Your task to perform on an android device: Search for "logitech g933" on bestbuy, select the first entry, and add it to the cart. Image 0: 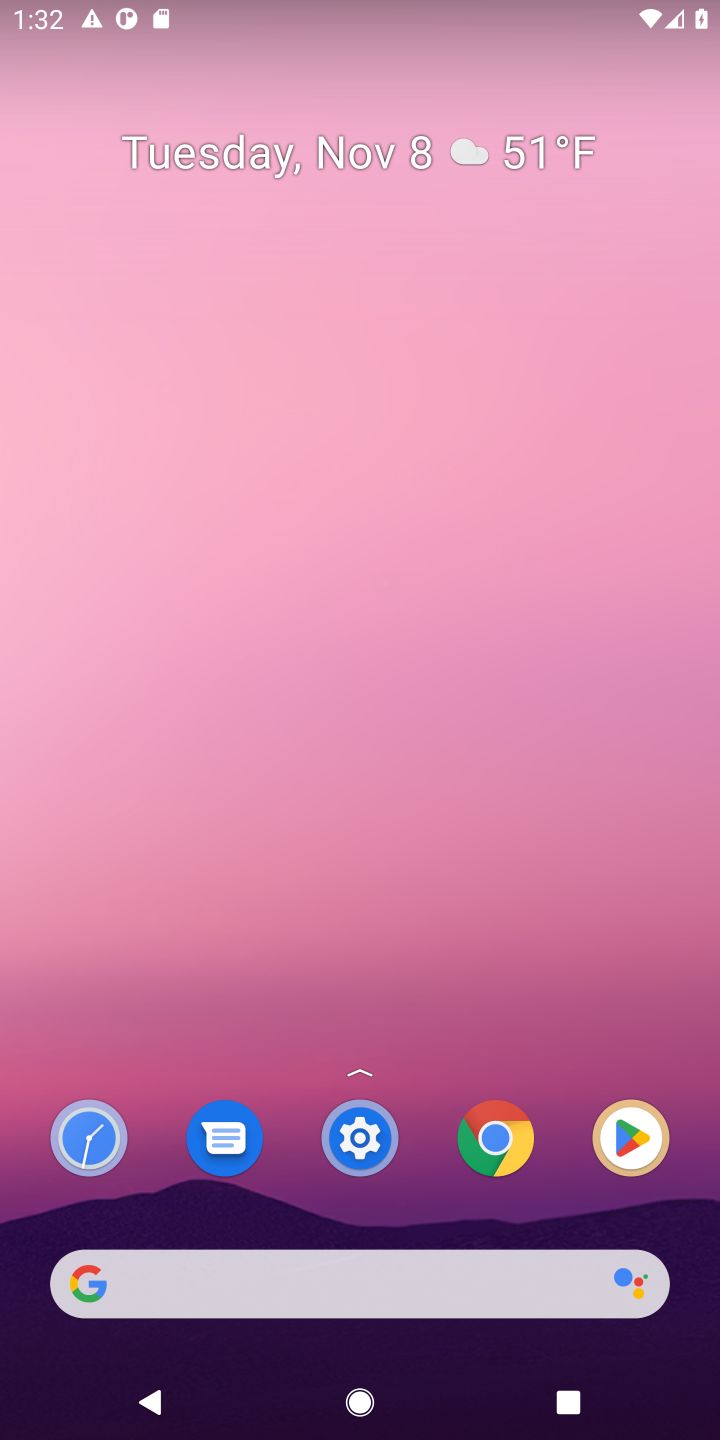
Step 0: click (418, 1275)
Your task to perform on an android device: Search for "logitech g933" on bestbuy, select the first entry, and add it to the cart. Image 1: 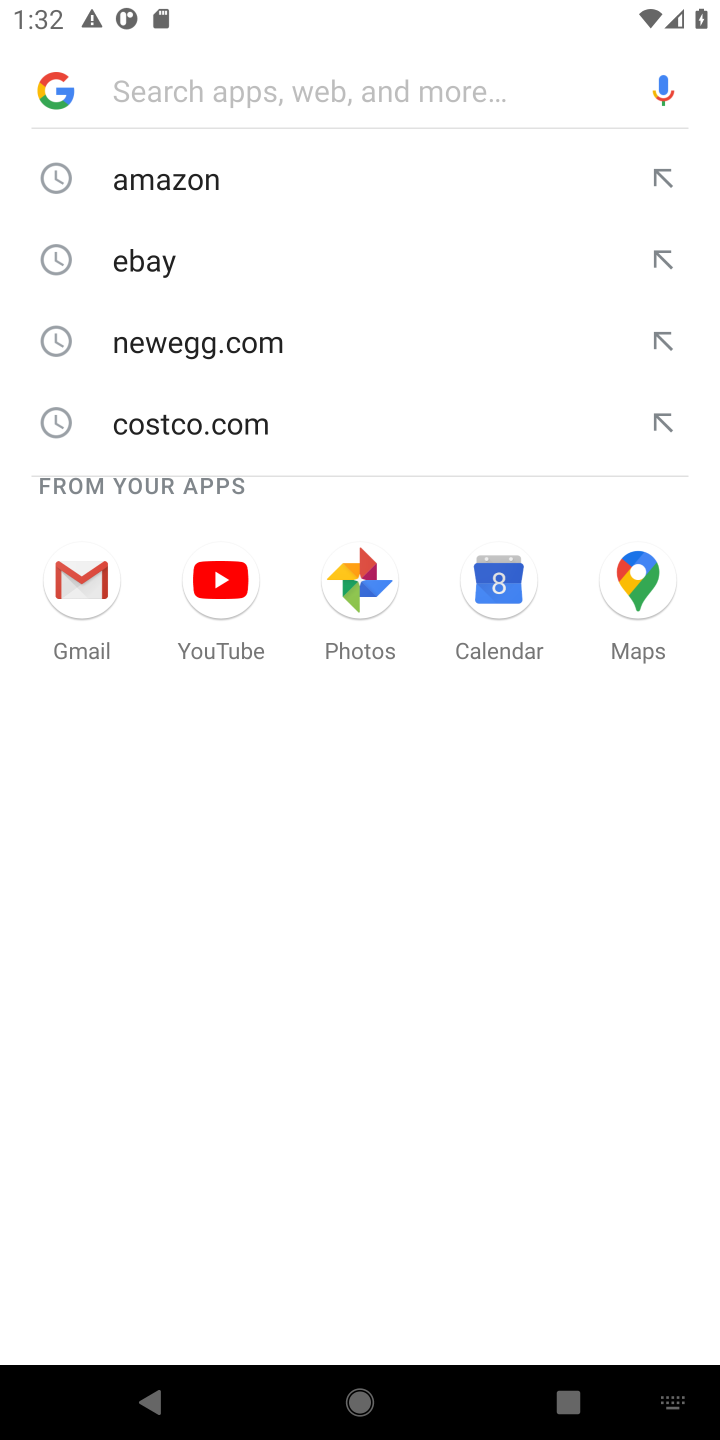
Step 1: click (661, 876)
Your task to perform on an android device: Search for "logitech g933" on bestbuy, select the first entry, and add it to the cart. Image 2: 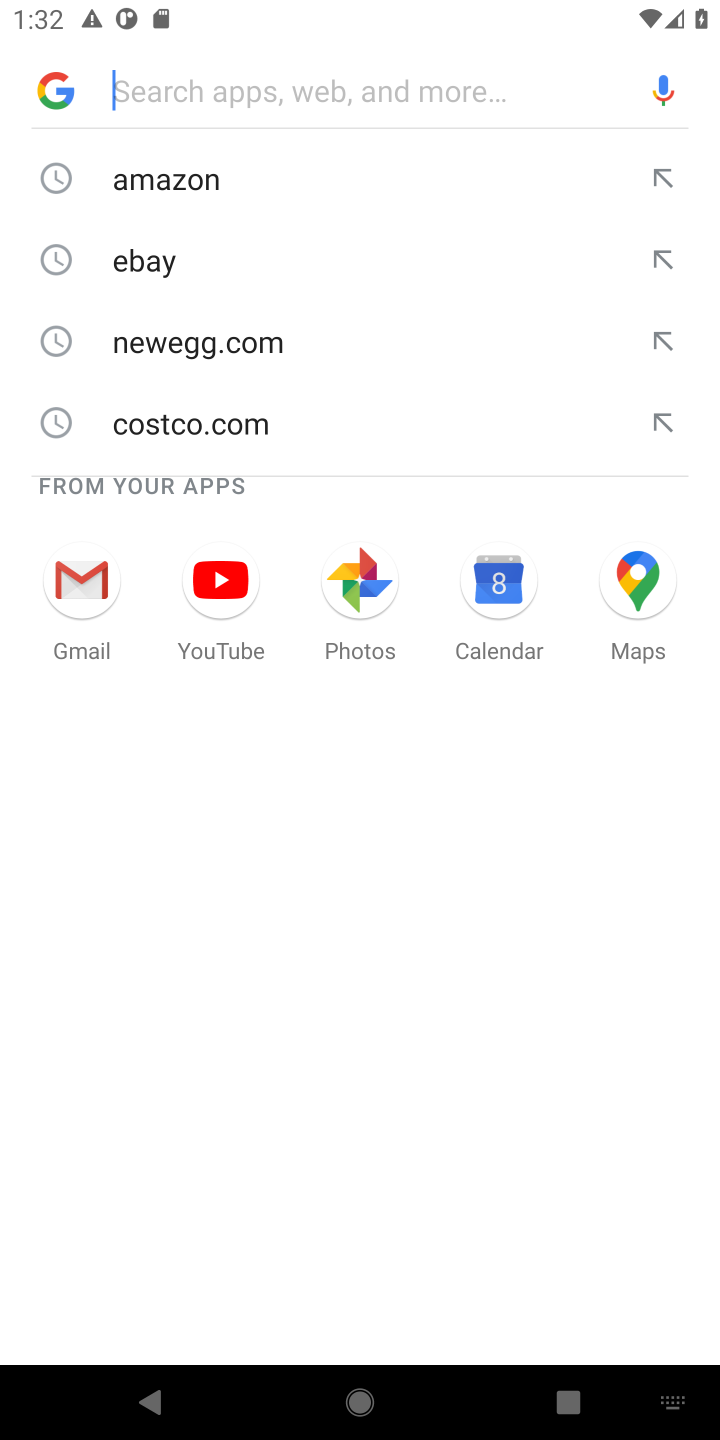
Step 2: type "besrbuy"
Your task to perform on an android device: Search for "logitech g933" on bestbuy, select the first entry, and add it to the cart. Image 3: 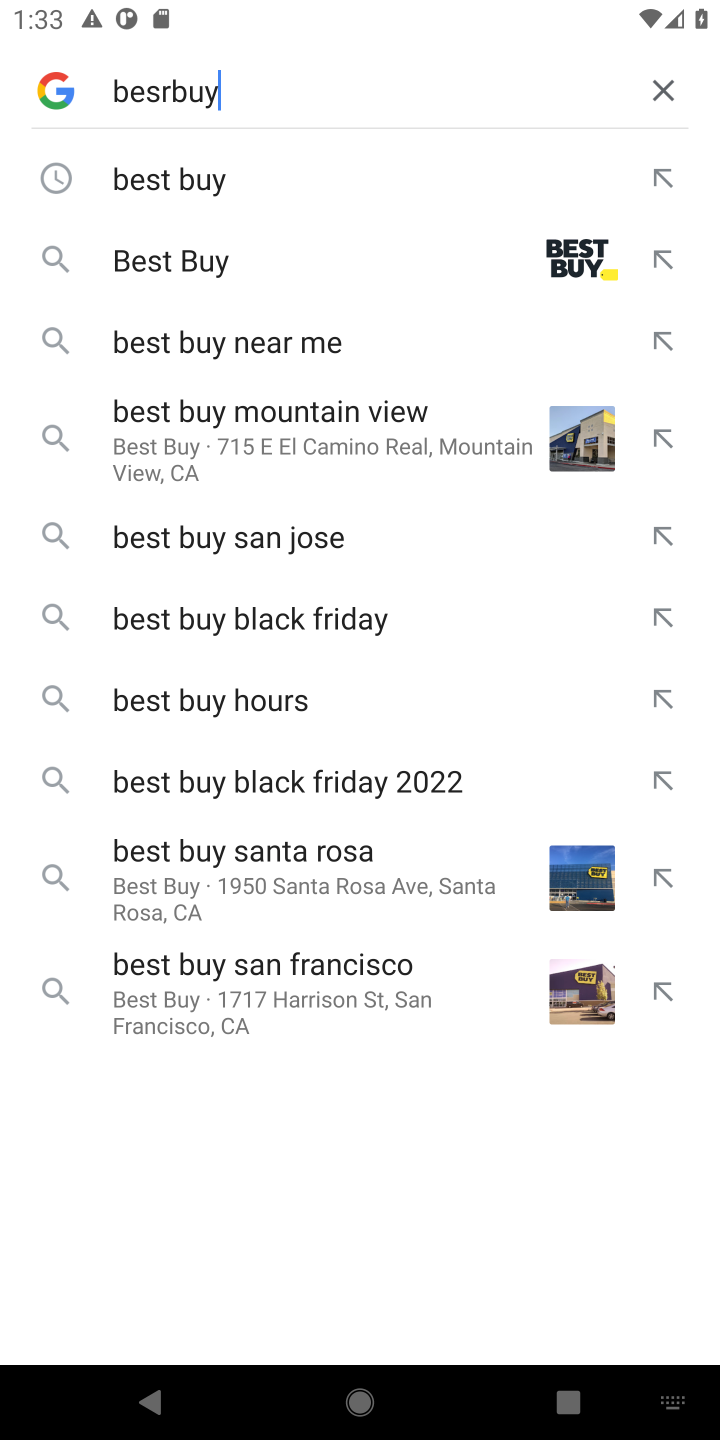
Step 3: click (231, 196)
Your task to perform on an android device: Search for "logitech g933" on bestbuy, select the first entry, and add it to the cart. Image 4: 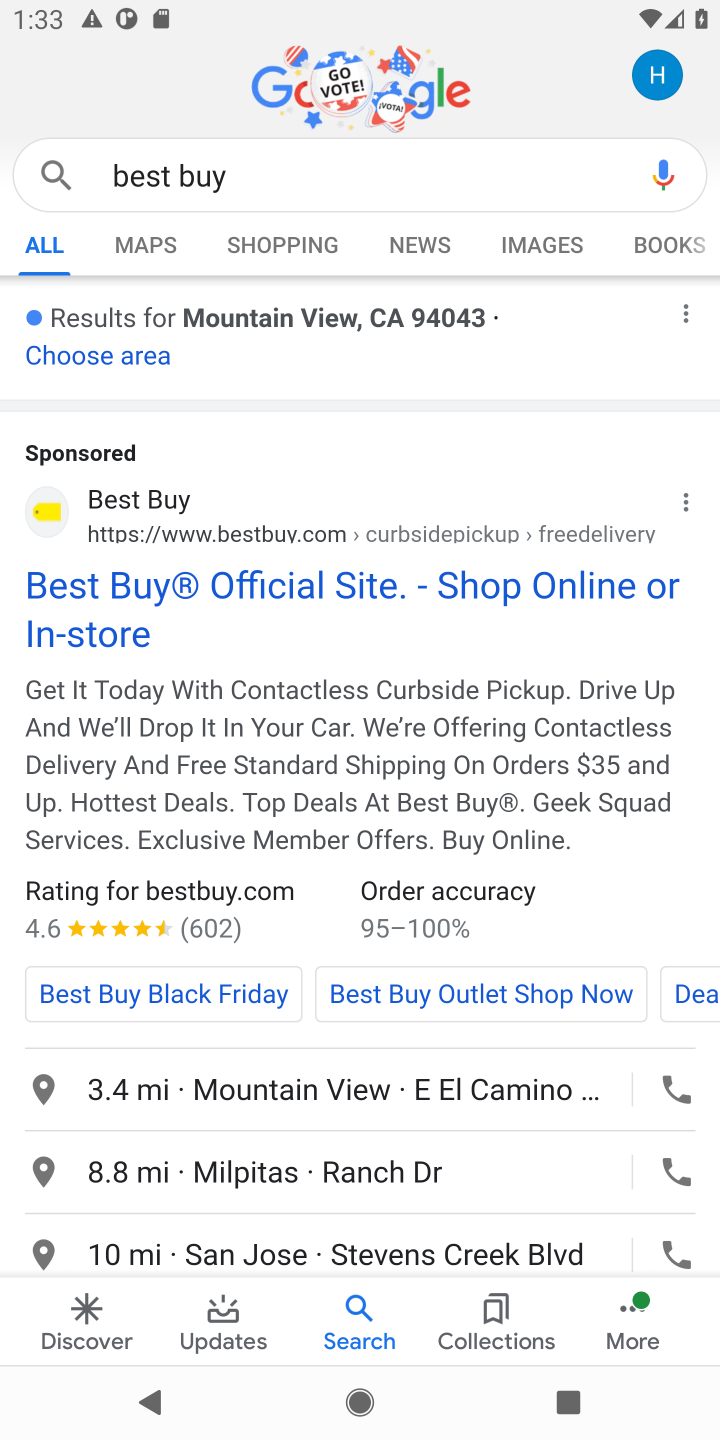
Step 4: click (209, 570)
Your task to perform on an android device: Search for "logitech g933" on bestbuy, select the first entry, and add it to the cart. Image 5: 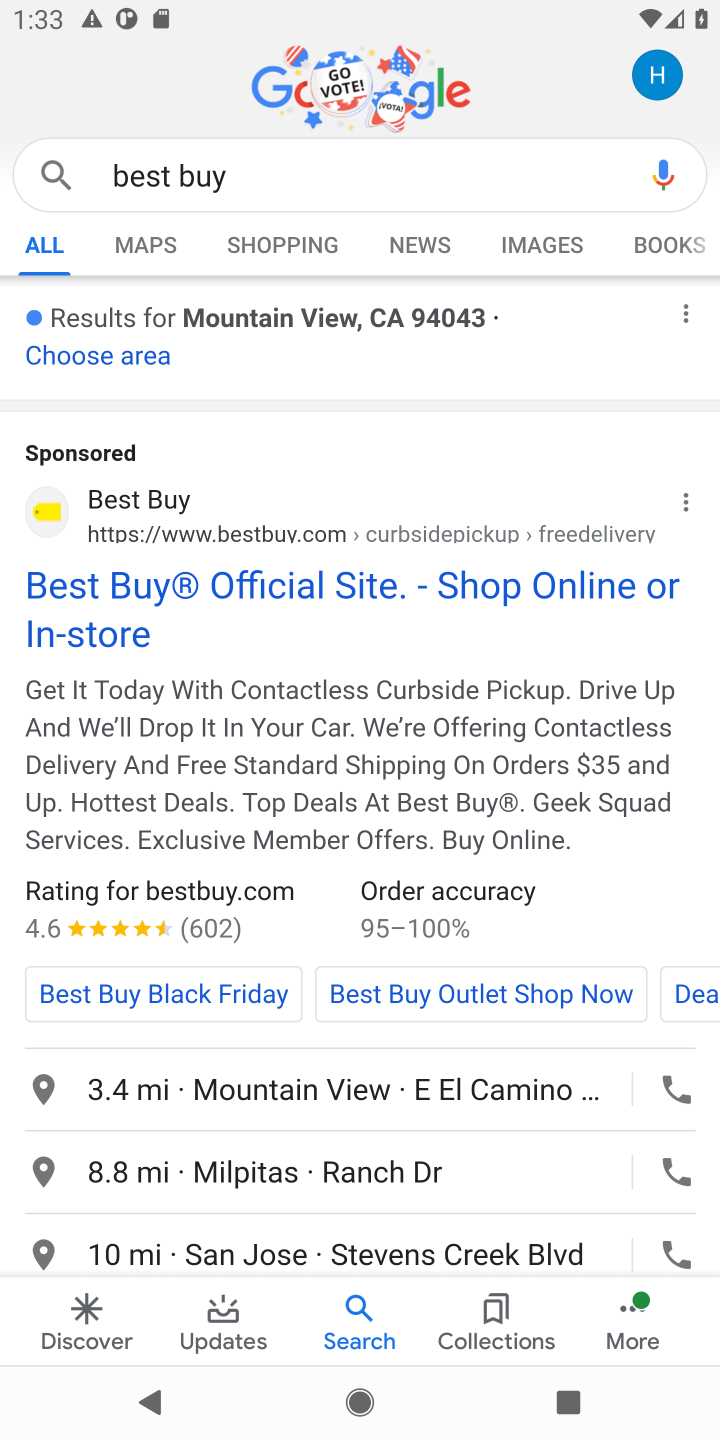
Step 5: task complete